Your task to perform on an android device: turn on sleep mode Image 0: 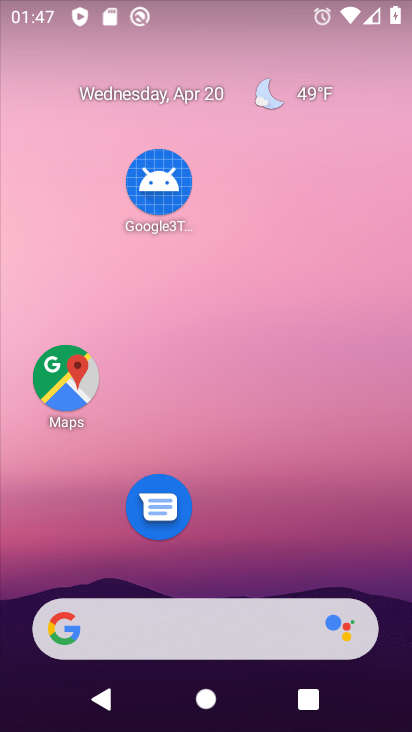
Step 0: drag from (253, 497) to (273, 13)
Your task to perform on an android device: turn on sleep mode Image 1: 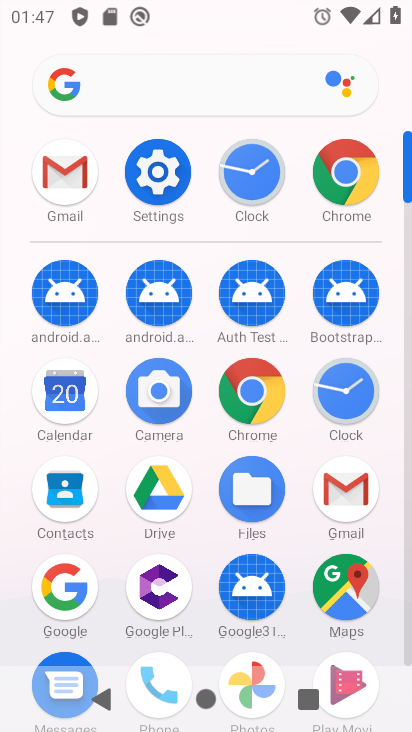
Step 1: click (164, 175)
Your task to perform on an android device: turn on sleep mode Image 2: 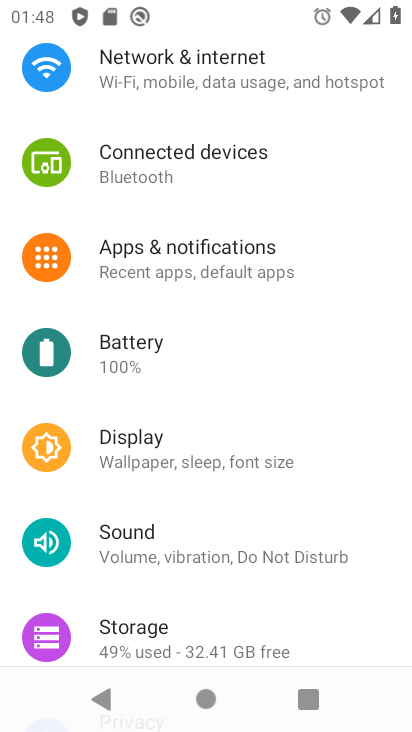
Step 2: click (125, 448)
Your task to perform on an android device: turn on sleep mode Image 3: 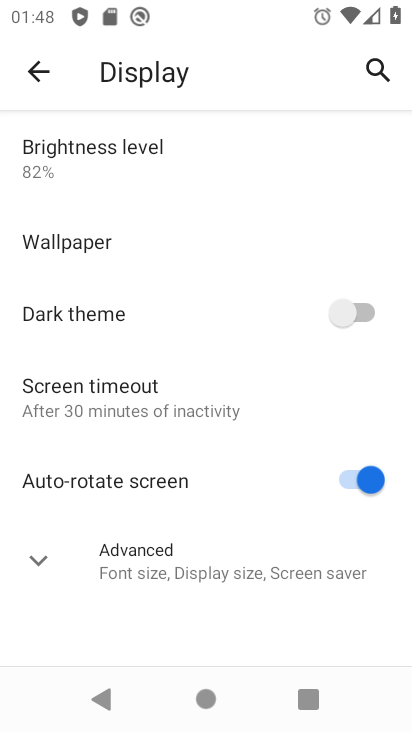
Step 3: drag from (177, 472) to (162, 405)
Your task to perform on an android device: turn on sleep mode Image 4: 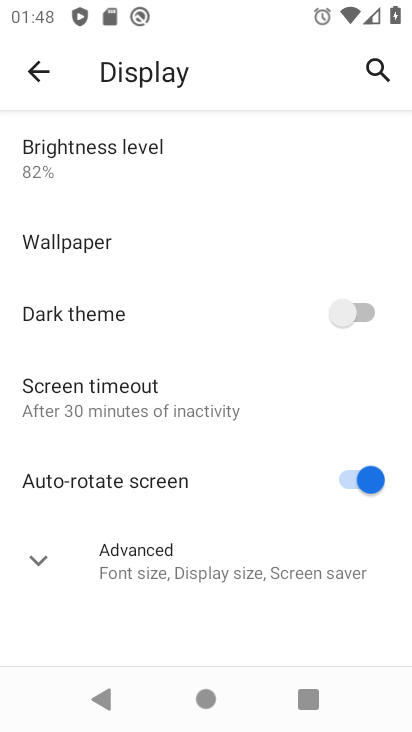
Step 4: click (123, 569)
Your task to perform on an android device: turn on sleep mode Image 5: 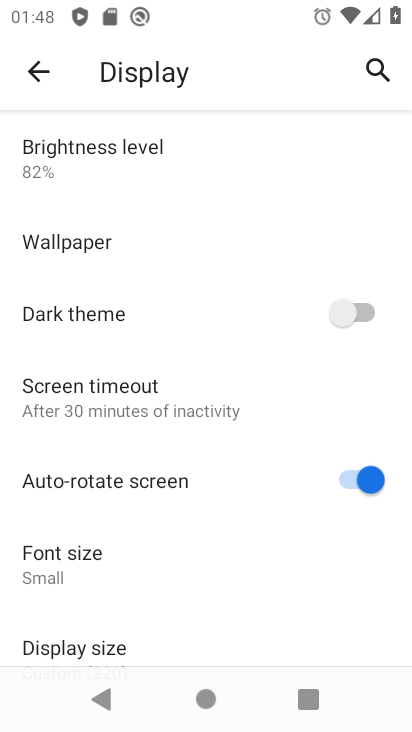
Step 5: task complete